Your task to perform on an android device: see sites visited before in the chrome app Image 0: 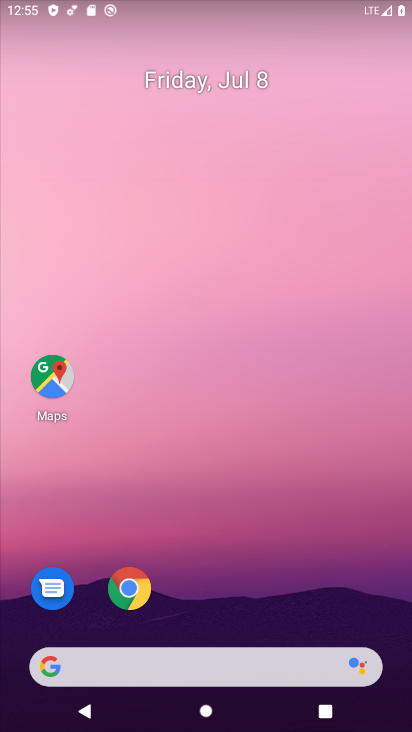
Step 0: drag from (208, 602) to (266, 9)
Your task to perform on an android device: see sites visited before in the chrome app Image 1: 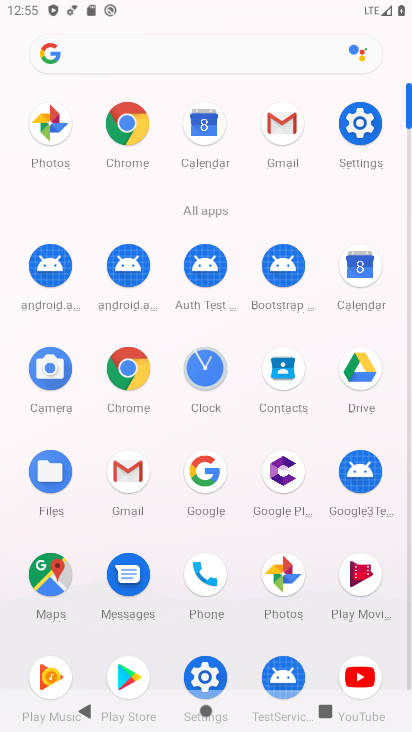
Step 1: click (132, 371)
Your task to perform on an android device: see sites visited before in the chrome app Image 2: 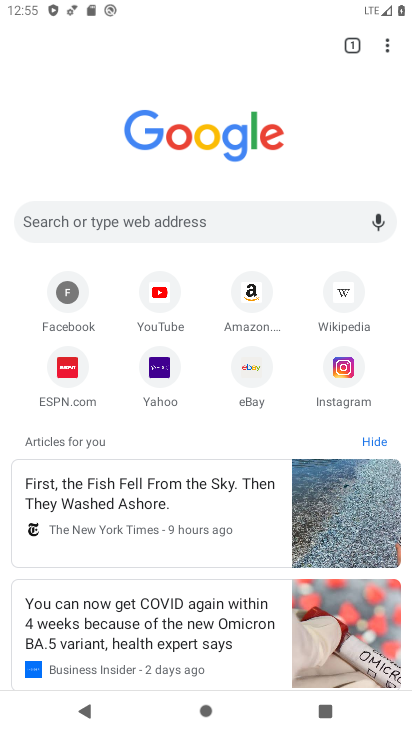
Step 2: click (391, 46)
Your task to perform on an android device: see sites visited before in the chrome app Image 3: 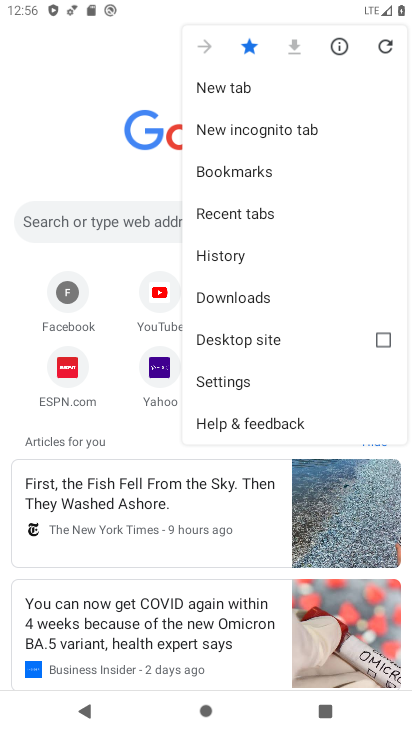
Step 3: click (257, 259)
Your task to perform on an android device: see sites visited before in the chrome app Image 4: 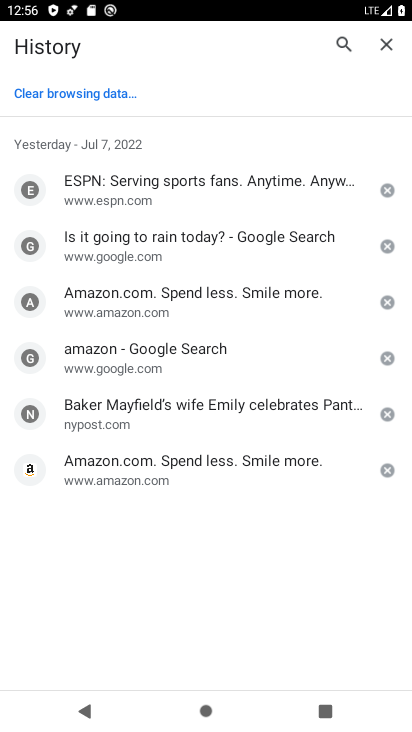
Step 4: task complete